Your task to perform on an android device: Go to internet settings Image 0: 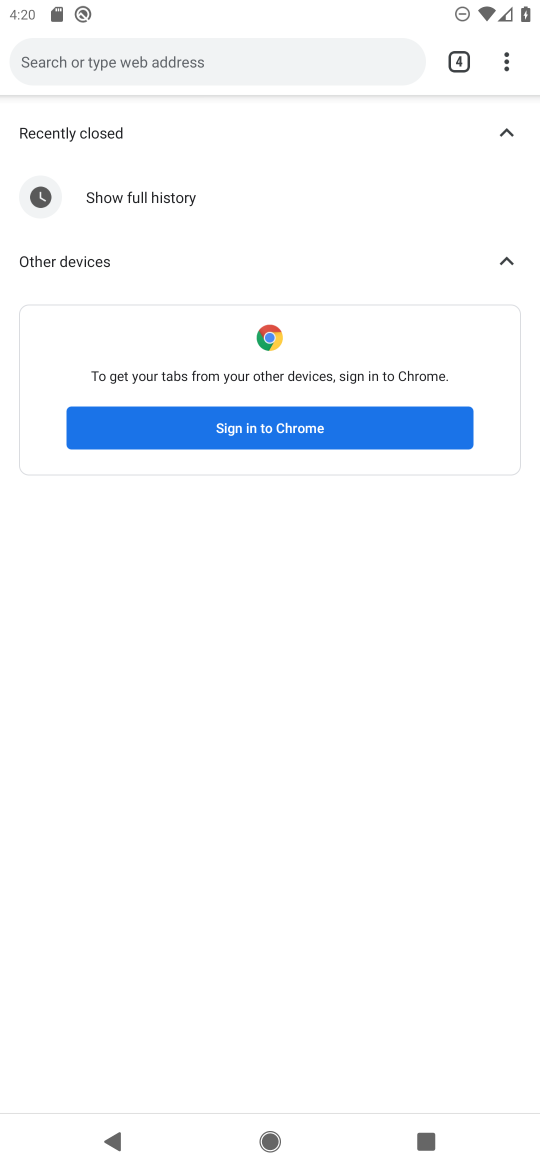
Step 0: press home button
Your task to perform on an android device: Go to internet settings Image 1: 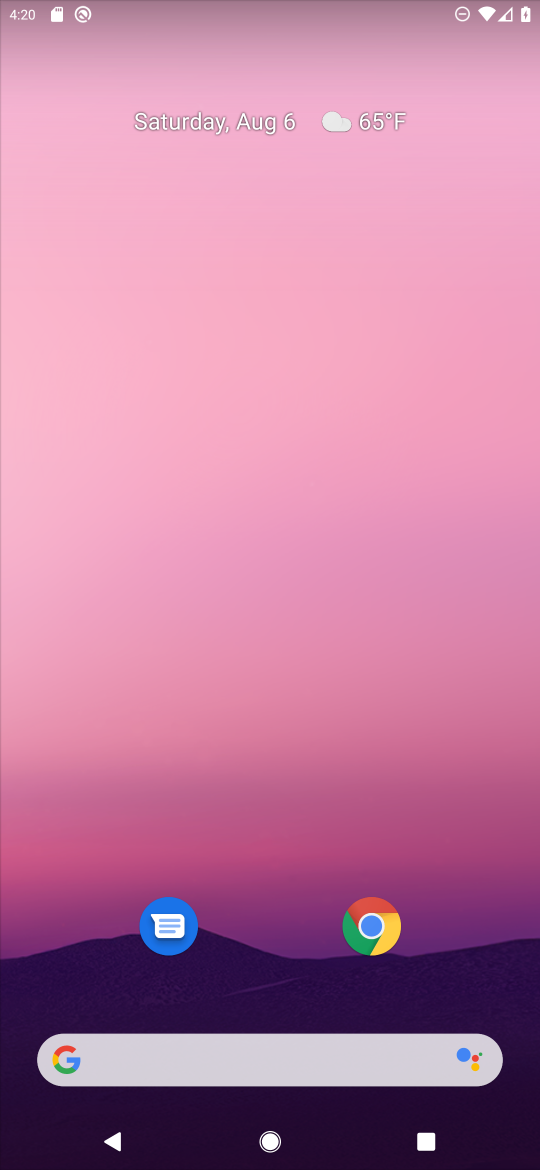
Step 1: drag from (267, 931) to (287, 350)
Your task to perform on an android device: Go to internet settings Image 2: 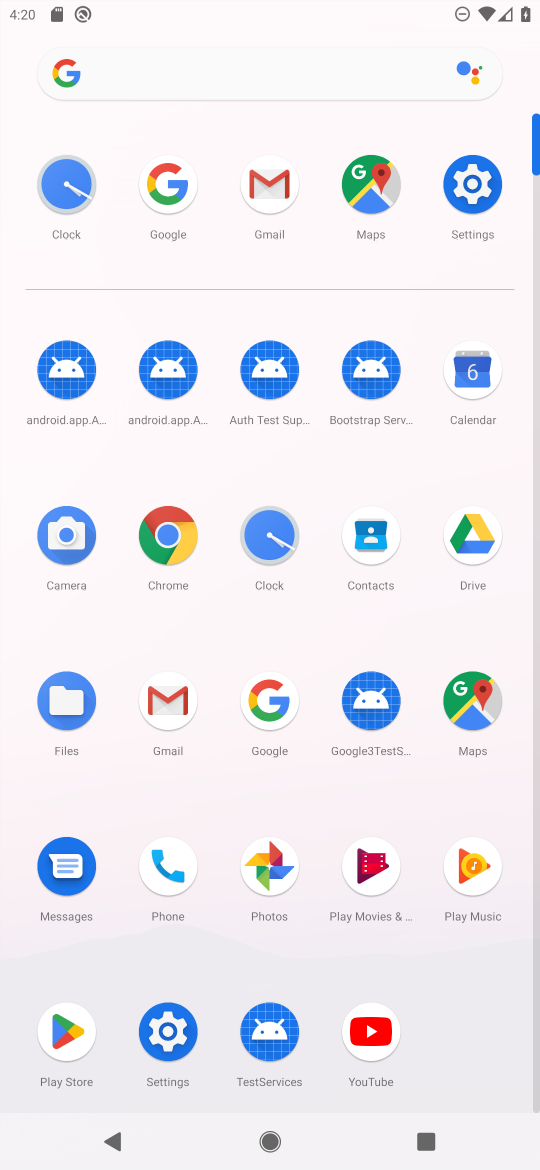
Step 2: click (458, 215)
Your task to perform on an android device: Go to internet settings Image 3: 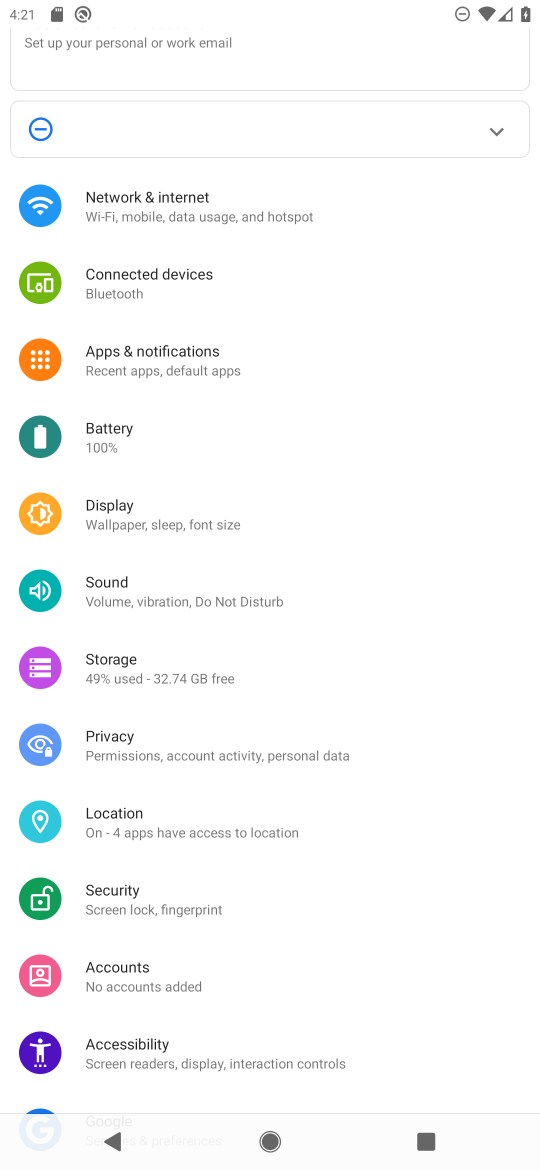
Step 3: click (228, 209)
Your task to perform on an android device: Go to internet settings Image 4: 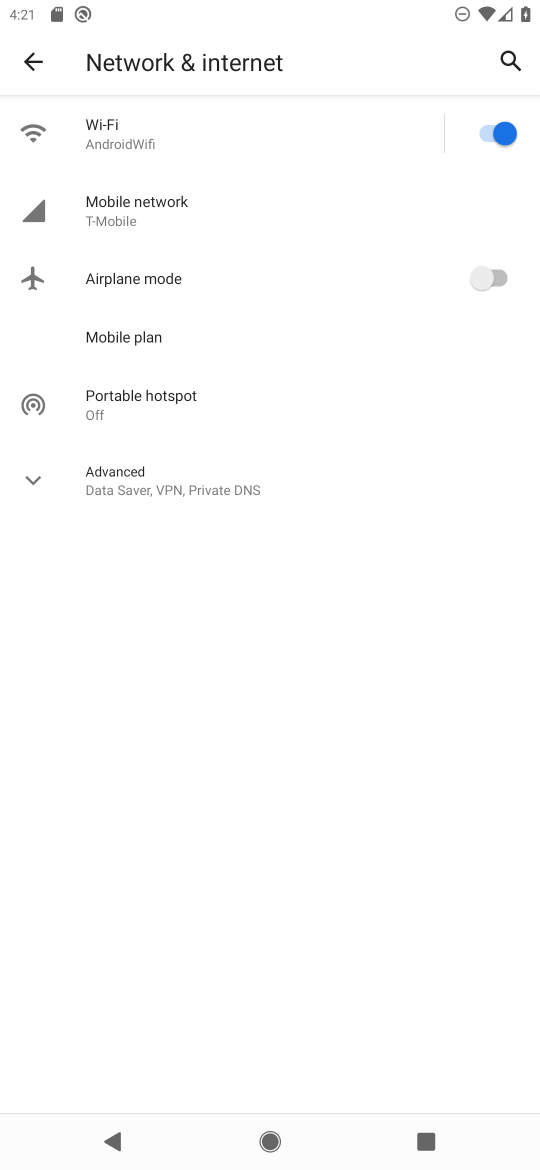
Step 4: task complete